Your task to perform on an android device: Search for seafood restaurants on Google Maps Image 0: 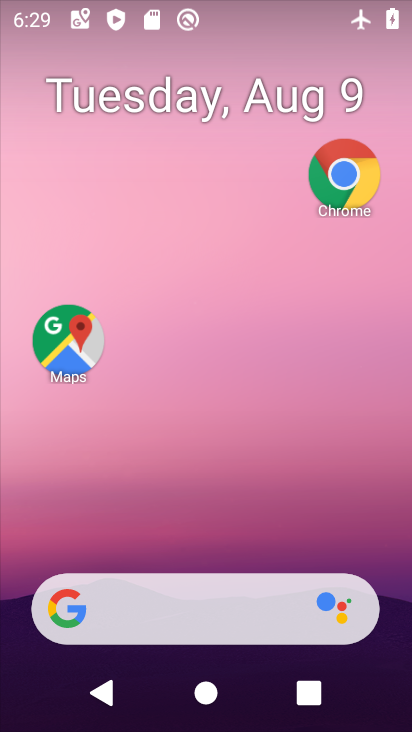
Step 0: drag from (219, 505) to (222, 343)
Your task to perform on an android device: Search for seafood restaurants on Google Maps Image 1: 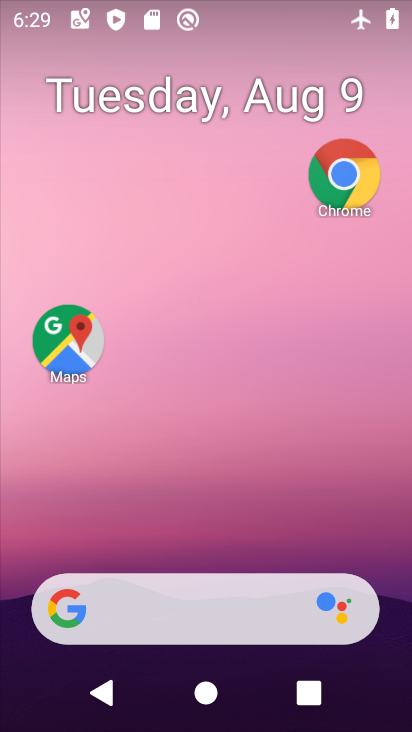
Step 1: drag from (257, 499) to (271, 167)
Your task to perform on an android device: Search for seafood restaurants on Google Maps Image 2: 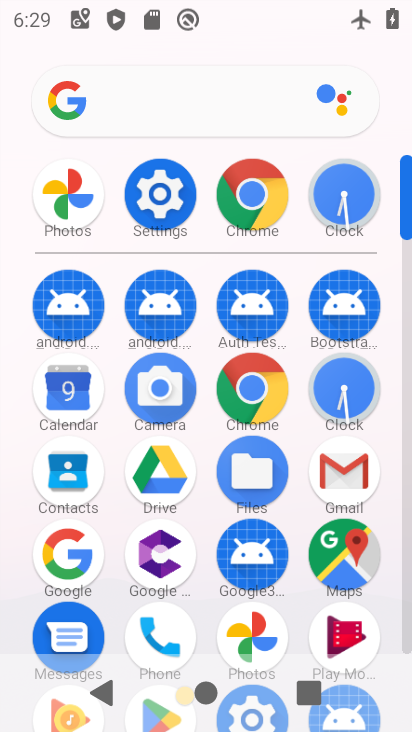
Step 2: drag from (196, 576) to (264, 142)
Your task to perform on an android device: Search for seafood restaurants on Google Maps Image 3: 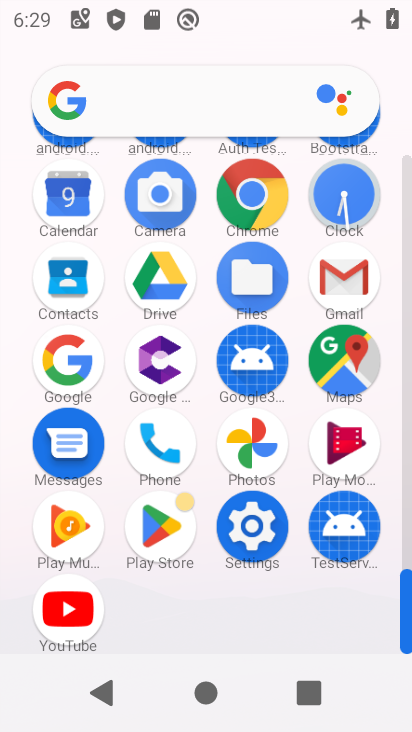
Step 3: click (331, 374)
Your task to perform on an android device: Search for seafood restaurants on Google Maps Image 4: 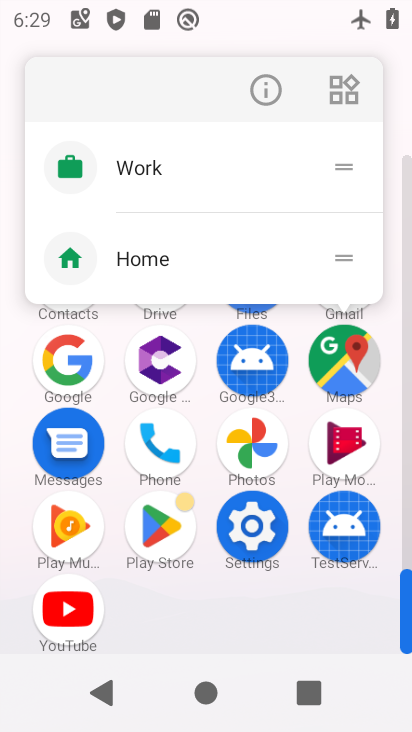
Step 4: click (275, 90)
Your task to perform on an android device: Search for seafood restaurants on Google Maps Image 5: 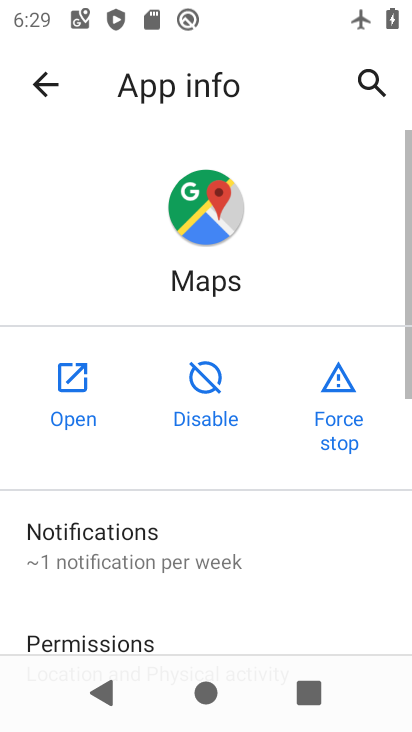
Step 5: click (78, 377)
Your task to perform on an android device: Search for seafood restaurants on Google Maps Image 6: 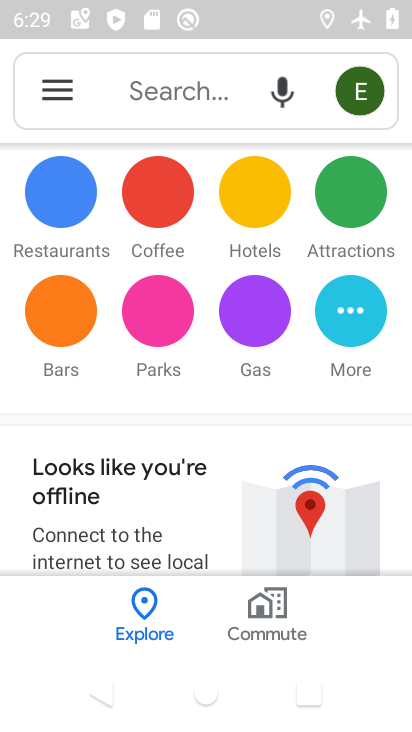
Step 6: click (67, 75)
Your task to perform on an android device: Search for seafood restaurants on Google Maps Image 7: 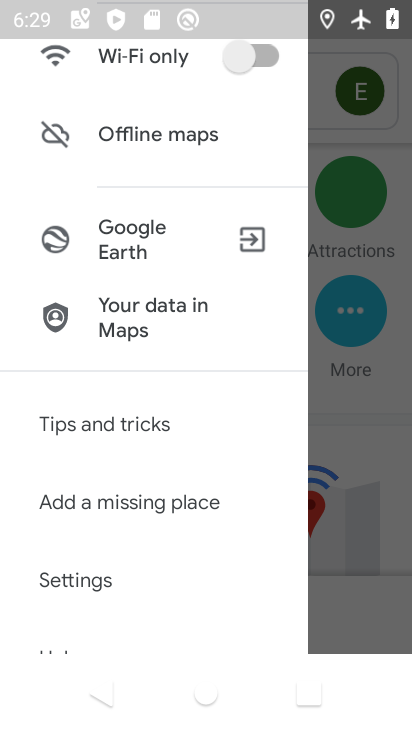
Step 7: click (87, 577)
Your task to perform on an android device: Search for seafood restaurants on Google Maps Image 8: 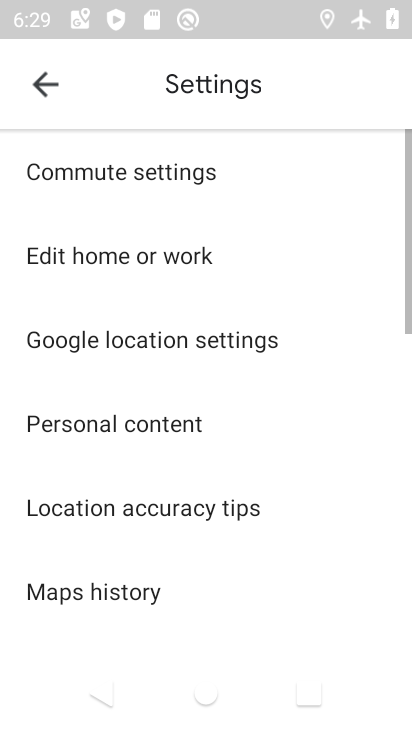
Step 8: drag from (87, 577) to (117, 192)
Your task to perform on an android device: Search for seafood restaurants on Google Maps Image 9: 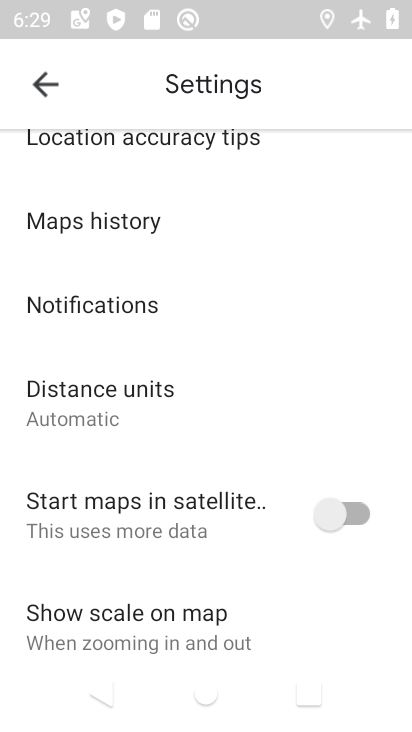
Step 9: click (28, 78)
Your task to perform on an android device: Search for seafood restaurants on Google Maps Image 10: 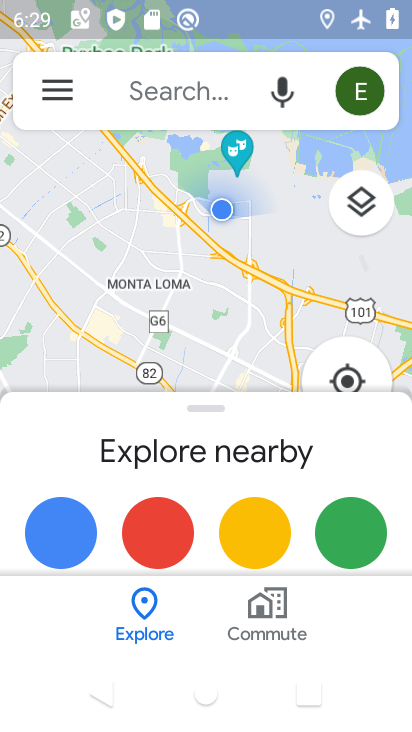
Step 10: click (156, 90)
Your task to perform on an android device: Search for seafood restaurants on Google Maps Image 11: 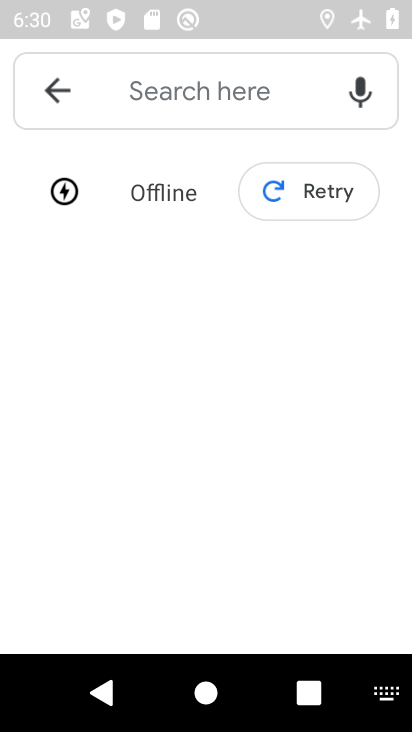
Step 11: click (160, 60)
Your task to perform on an android device: Search for seafood restaurants on Google Maps Image 12: 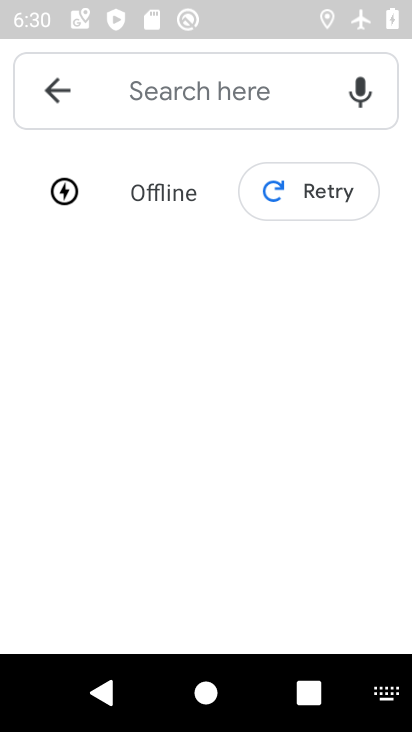
Step 12: type "seafood restaurants"
Your task to perform on an android device: Search for seafood restaurants on Google Maps Image 13: 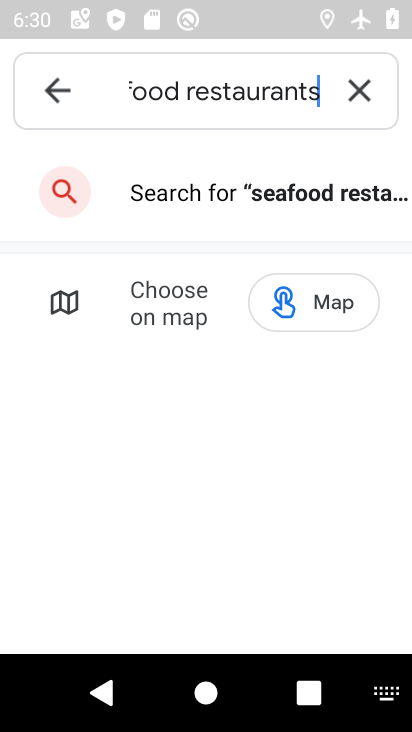
Step 13: type ""
Your task to perform on an android device: Search for seafood restaurants on Google Maps Image 14: 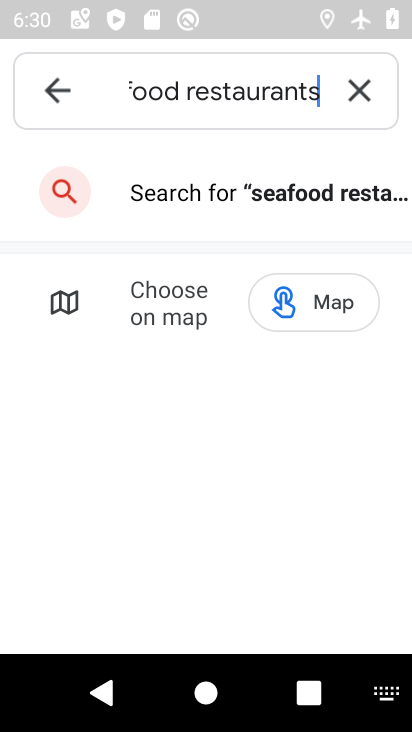
Step 14: click (208, 199)
Your task to perform on an android device: Search for seafood restaurants on Google Maps Image 15: 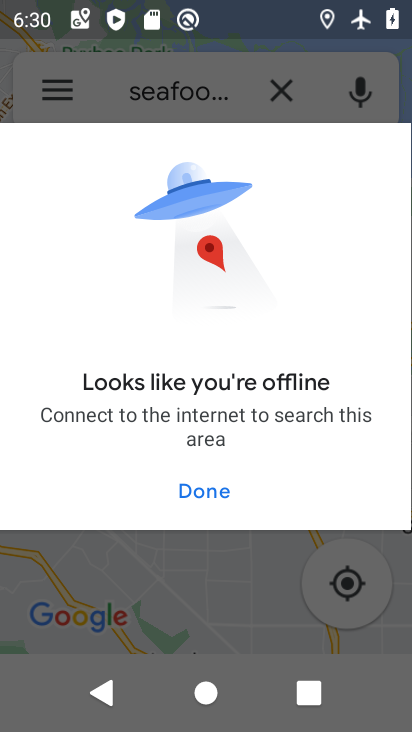
Step 15: click (198, 493)
Your task to perform on an android device: Search for seafood restaurants on Google Maps Image 16: 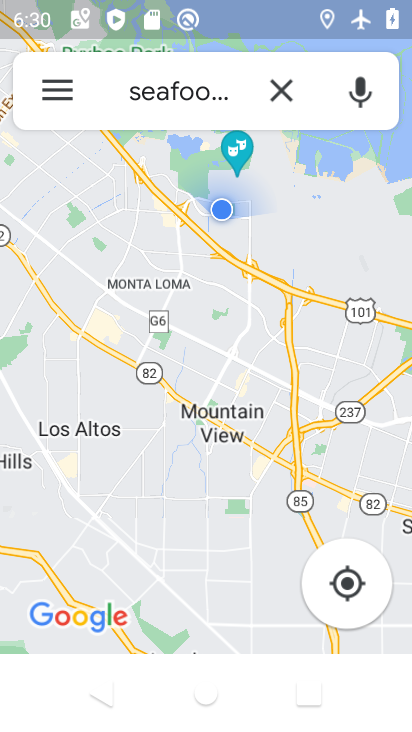
Step 16: task complete